Your task to perform on an android device: Search for sushi restaurants on Maps Image 0: 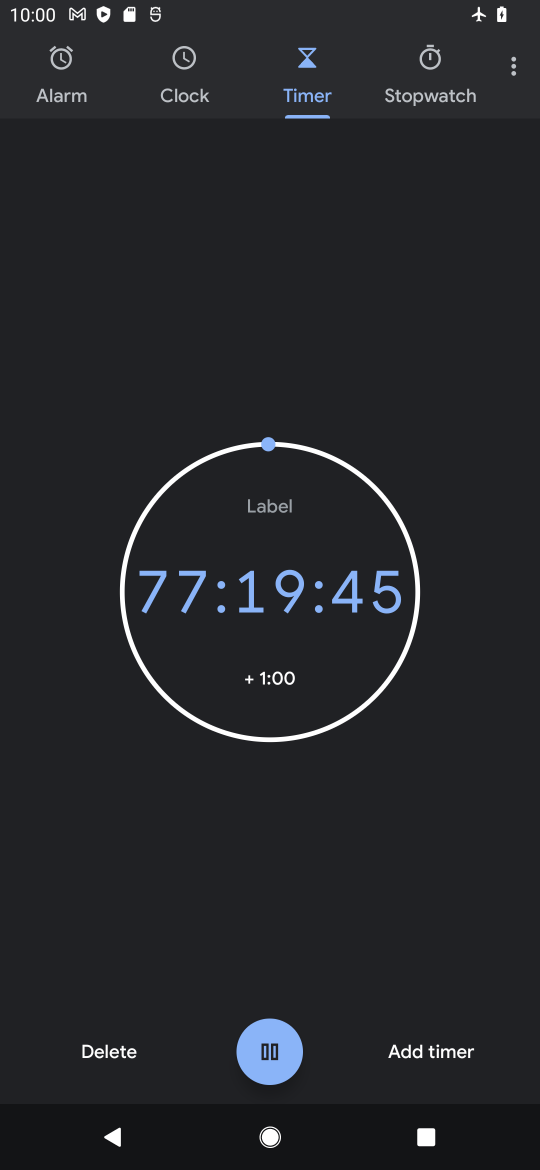
Step 0: press back button
Your task to perform on an android device: Search for sushi restaurants on Maps Image 1: 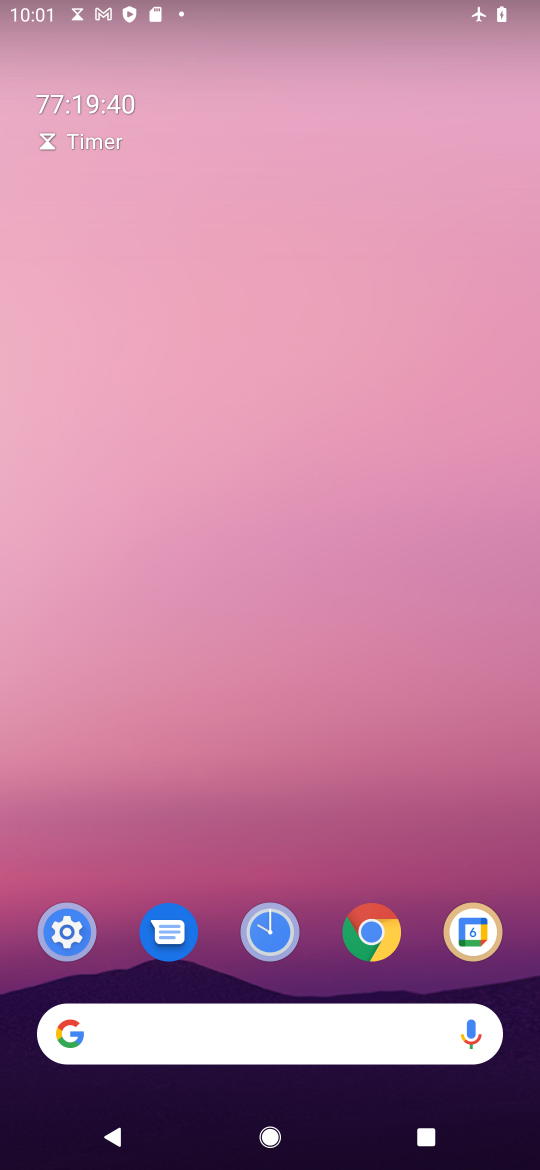
Step 1: drag from (373, 835) to (227, 16)
Your task to perform on an android device: Search for sushi restaurants on Maps Image 2: 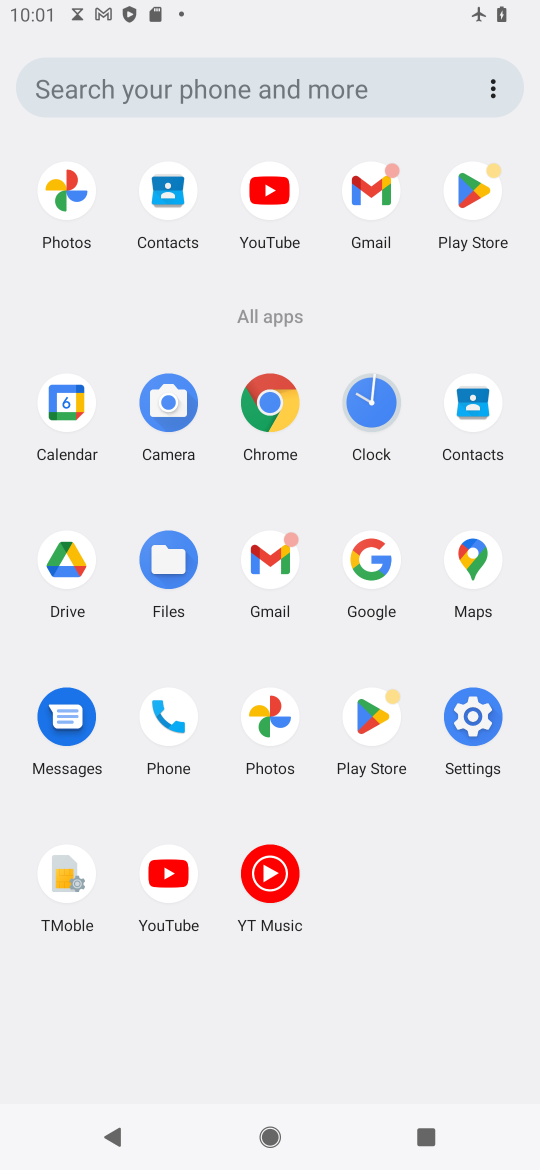
Step 2: click (472, 577)
Your task to perform on an android device: Search for sushi restaurants on Maps Image 3: 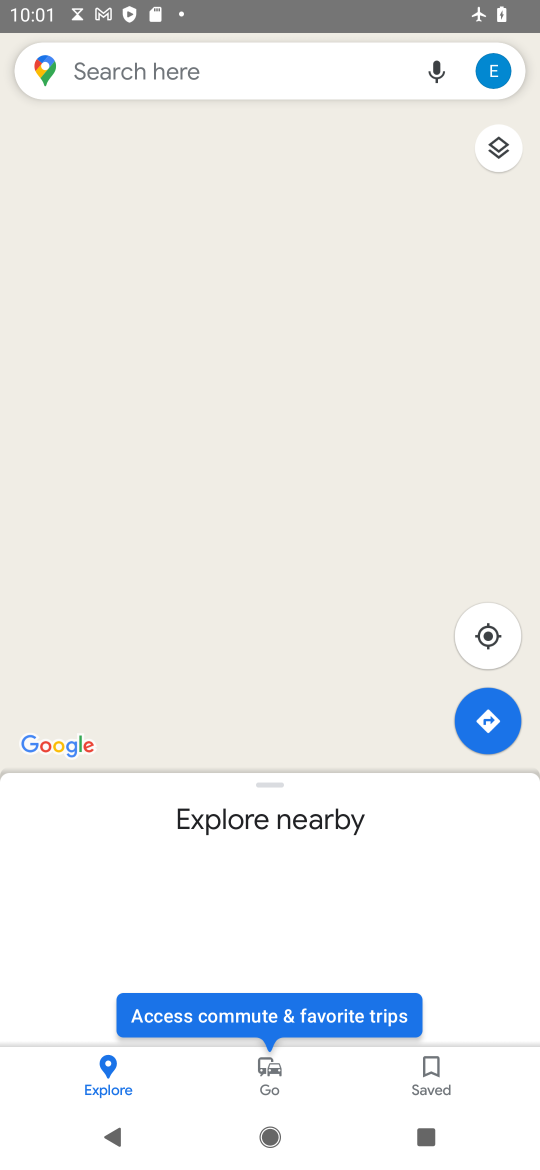
Step 3: click (160, 67)
Your task to perform on an android device: Search for sushi restaurants on Maps Image 4: 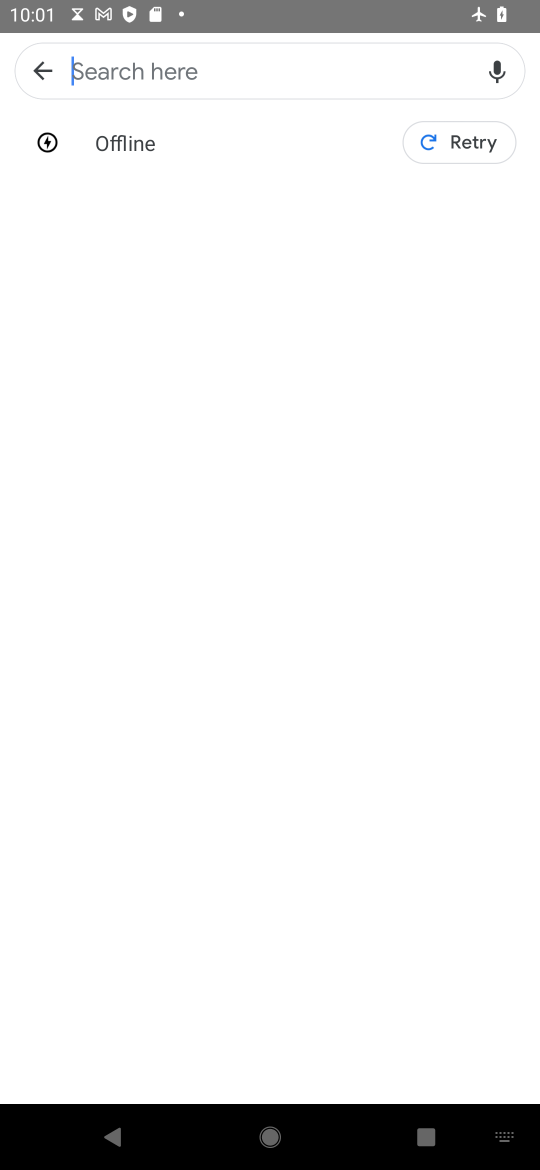
Step 4: type "sushi restaurants"
Your task to perform on an android device: Search for sushi restaurants on Maps Image 5: 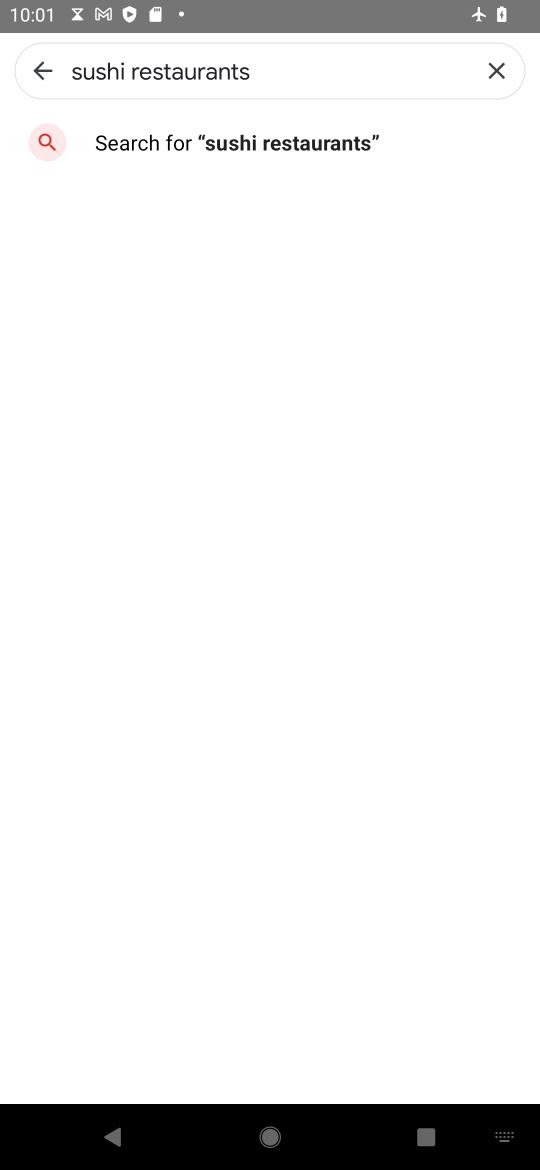
Step 5: click (296, 140)
Your task to perform on an android device: Search for sushi restaurants on Maps Image 6: 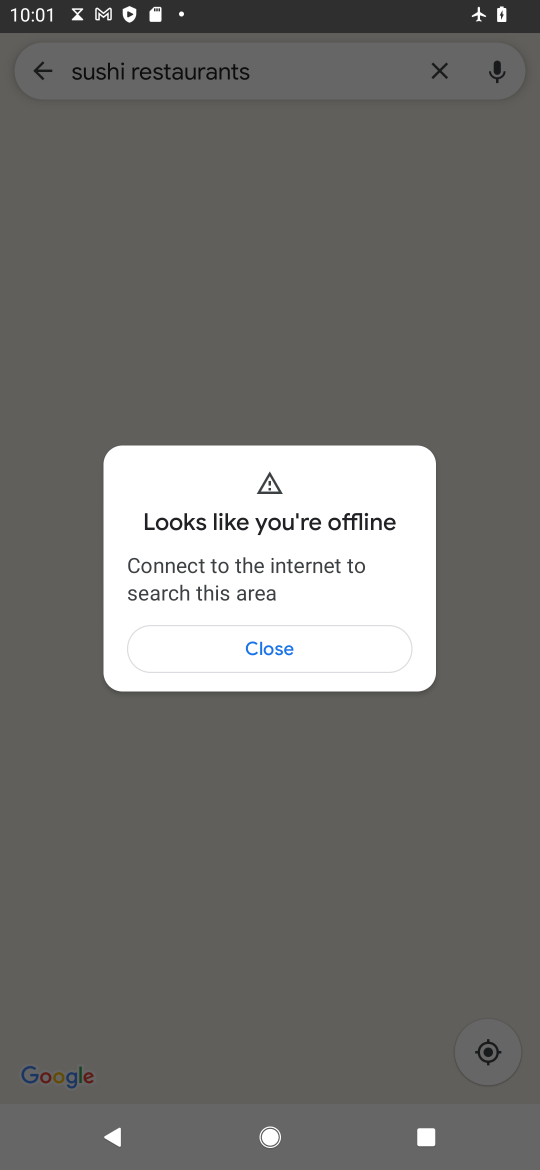
Step 6: task complete